Your task to perform on an android device: Do I have any events this weekend? Image 0: 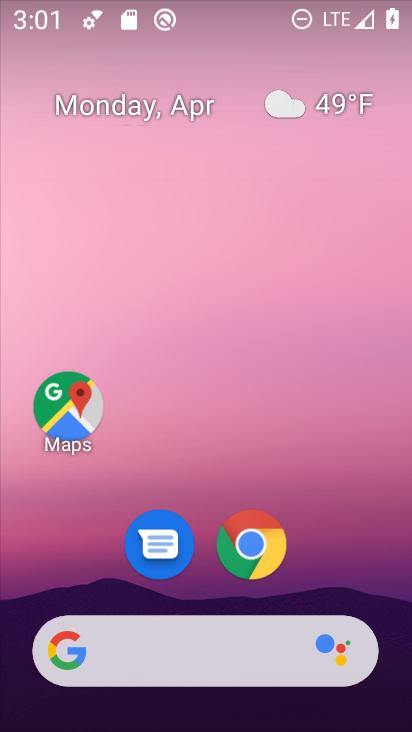
Step 0: drag from (340, 551) to (222, 40)
Your task to perform on an android device: Do I have any events this weekend? Image 1: 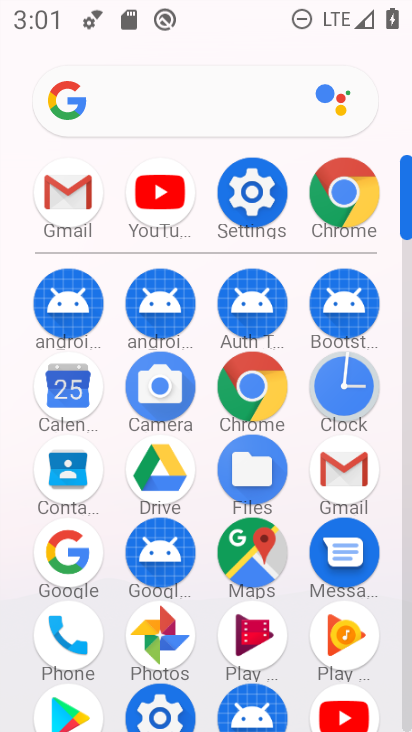
Step 1: click (64, 390)
Your task to perform on an android device: Do I have any events this weekend? Image 2: 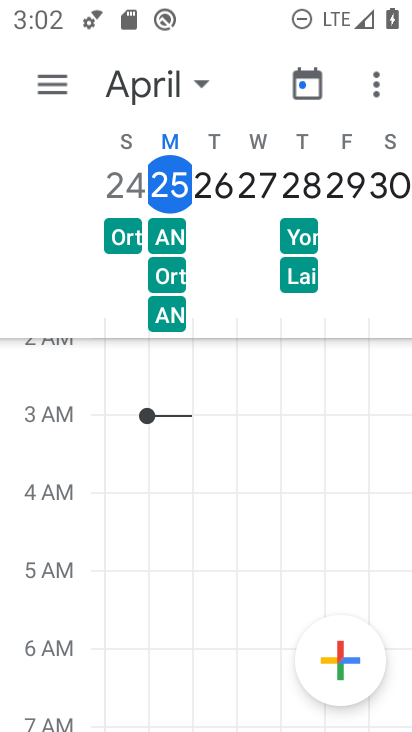
Step 2: click (199, 79)
Your task to perform on an android device: Do I have any events this weekend? Image 3: 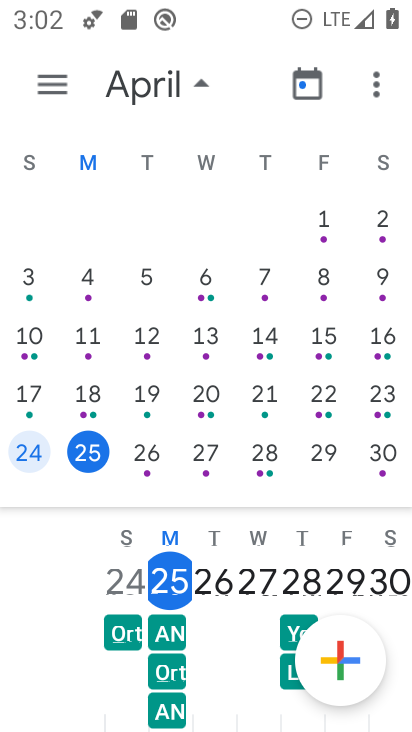
Step 3: task complete